Your task to perform on an android device: install app "Indeed Job Search" Image 0: 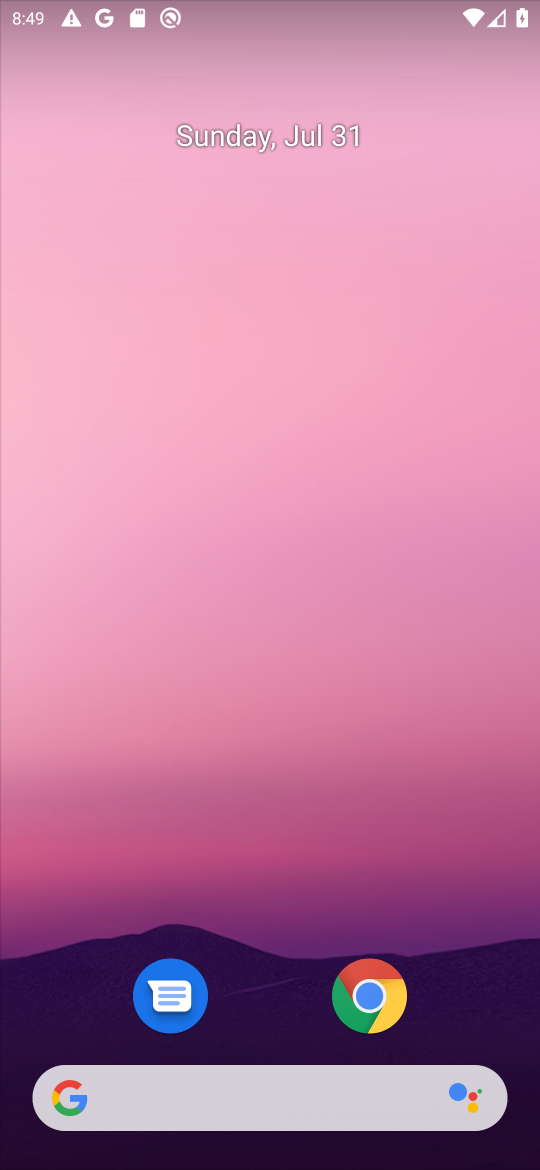
Step 0: press home button
Your task to perform on an android device: install app "Indeed Job Search" Image 1: 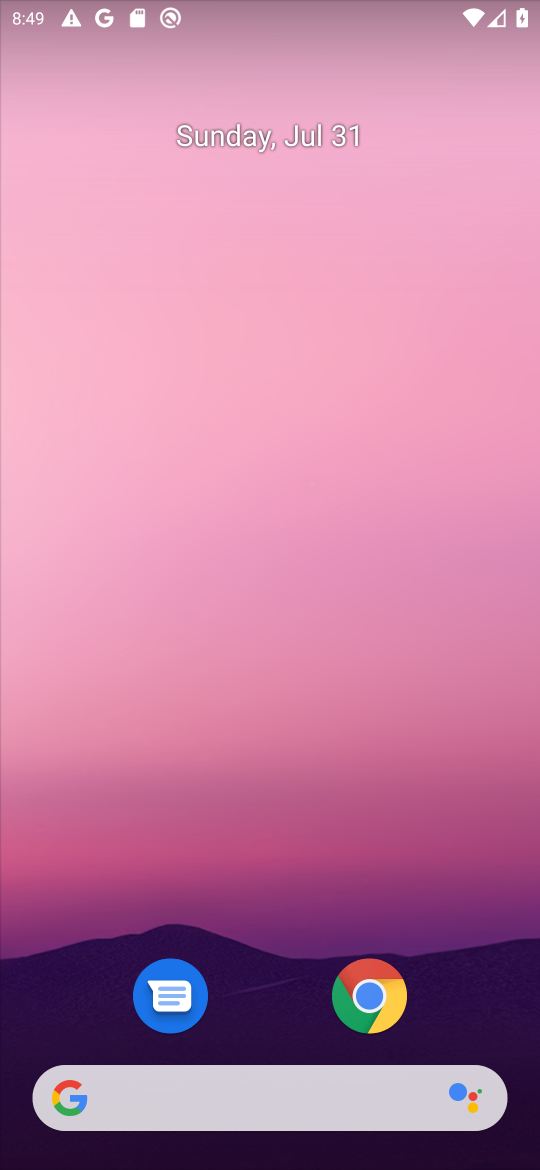
Step 1: drag from (468, 985) to (462, 92)
Your task to perform on an android device: install app "Indeed Job Search" Image 2: 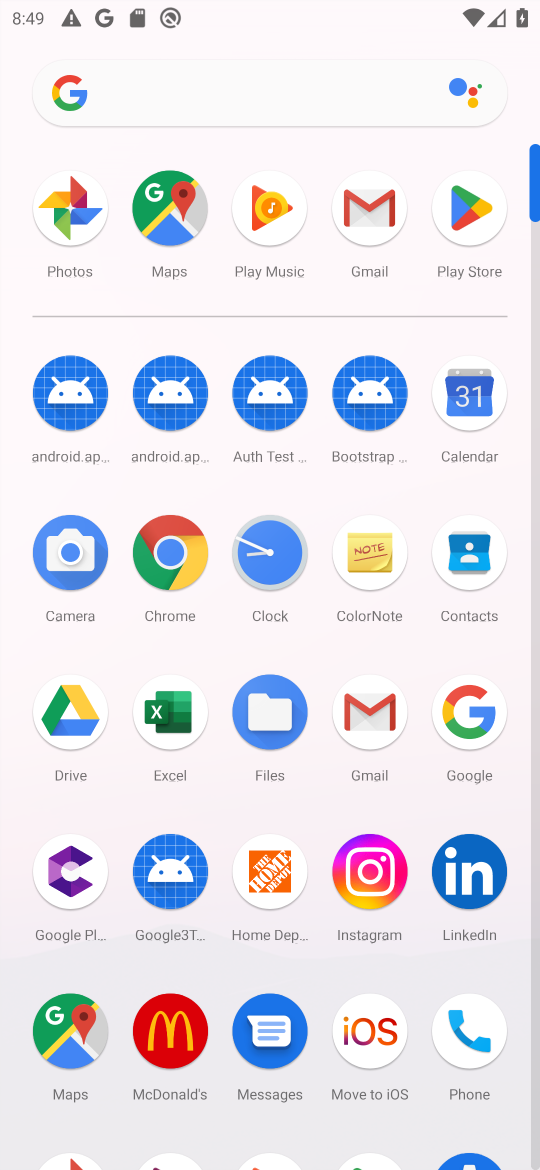
Step 2: click (472, 216)
Your task to perform on an android device: install app "Indeed Job Search" Image 3: 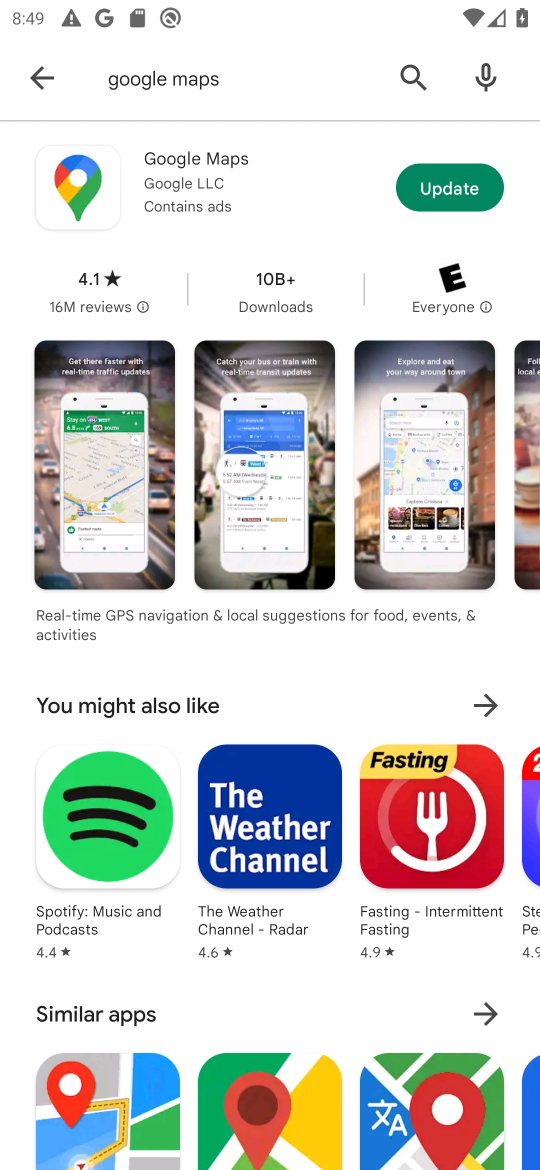
Step 3: click (472, 216)
Your task to perform on an android device: install app "Indeed Job Search" Image 4: 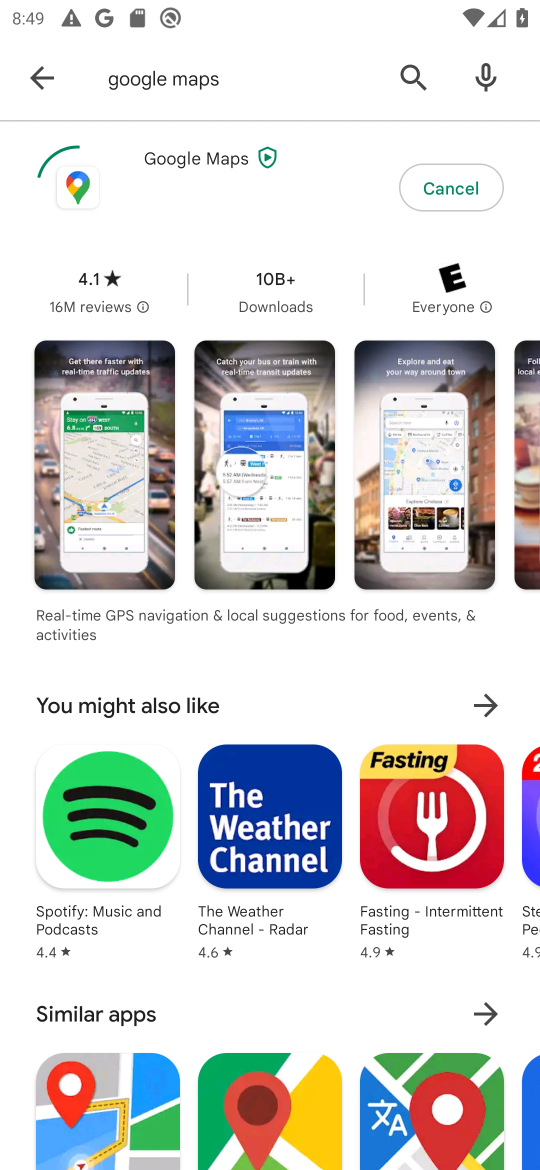
Step 4: click (390, 63)
Your task to perform on an android device: install app "Indeed Job Search" Image 5: 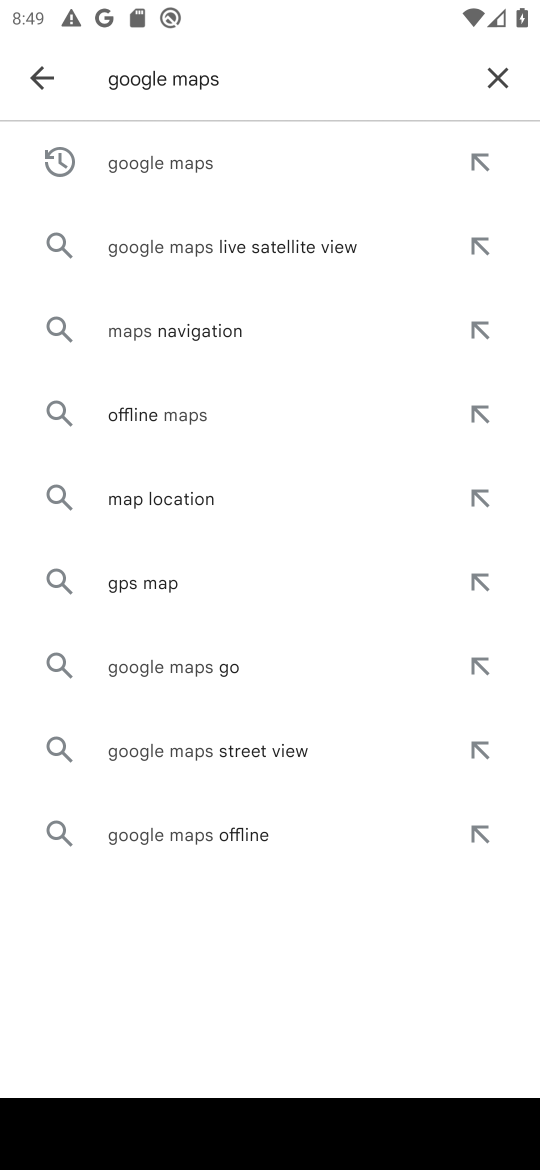
Step 5: click (515, 80)
Your task to perform on an android device: install app "Indeed Job Search" Image 6: 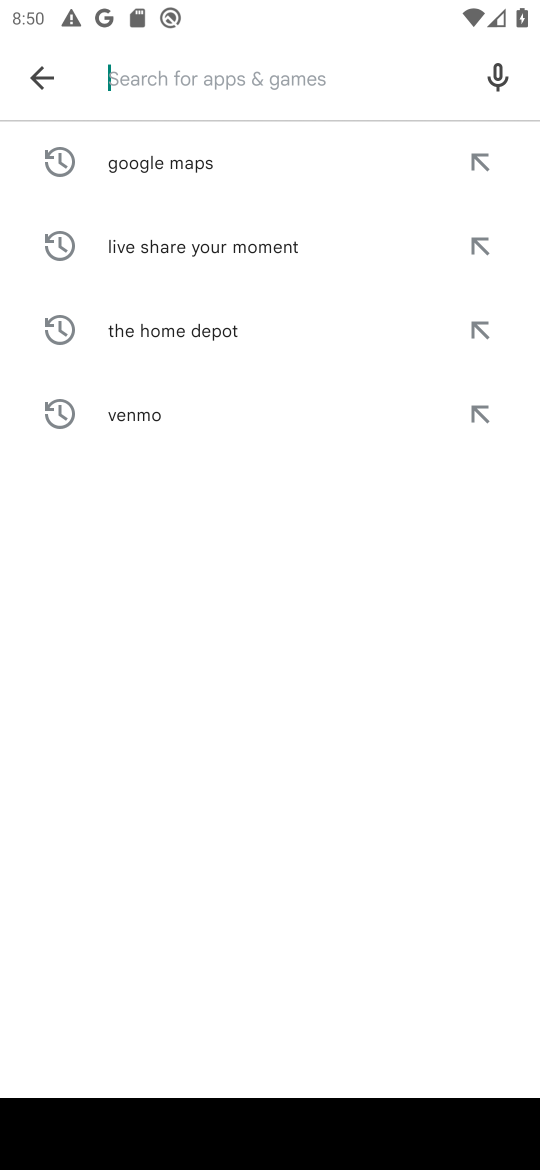
Step 6: type "indeed job search"
Your task to perform on an android device: install app "Indeed Job Search" Image 7: 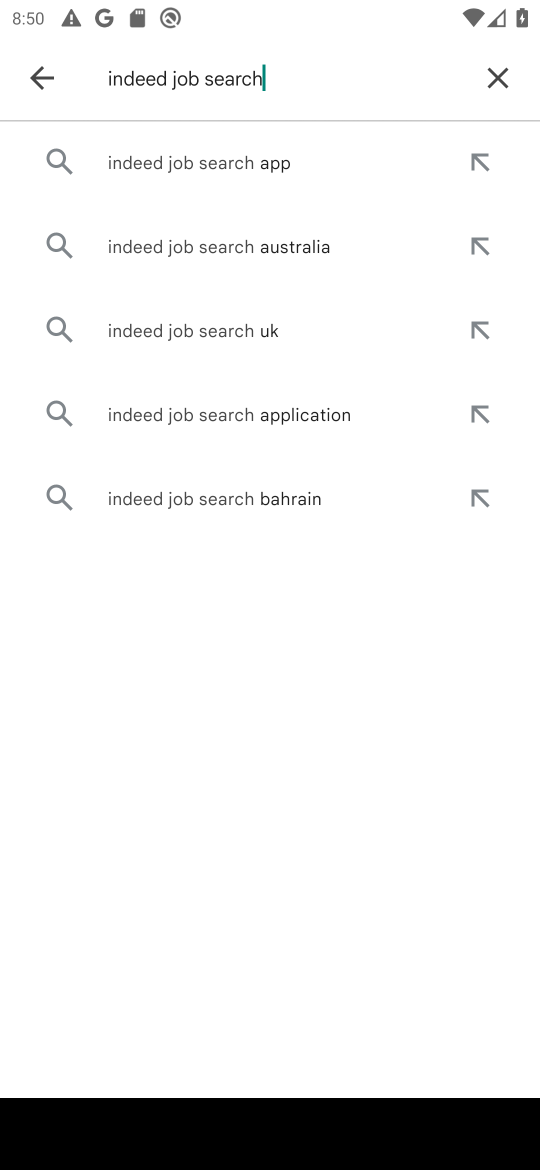
Step 7: click (197, 170)
Your task to perform on an android device: install app "Indeed Job Search" Image 8: 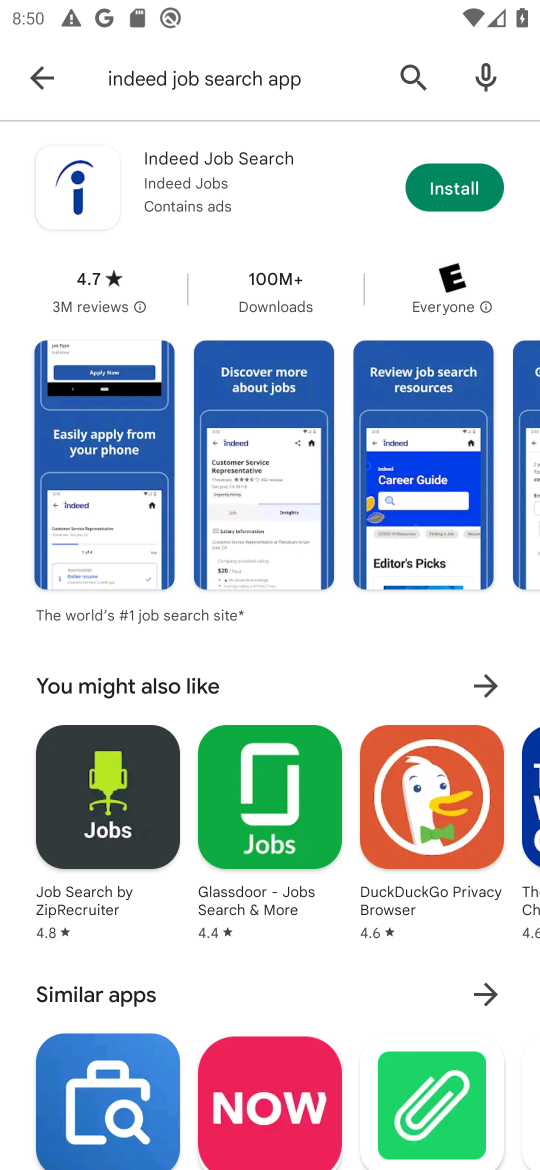
Step 8: click (440, 178)
Your task to perform on an android device: install app "Indeed Job Search" Image 9: 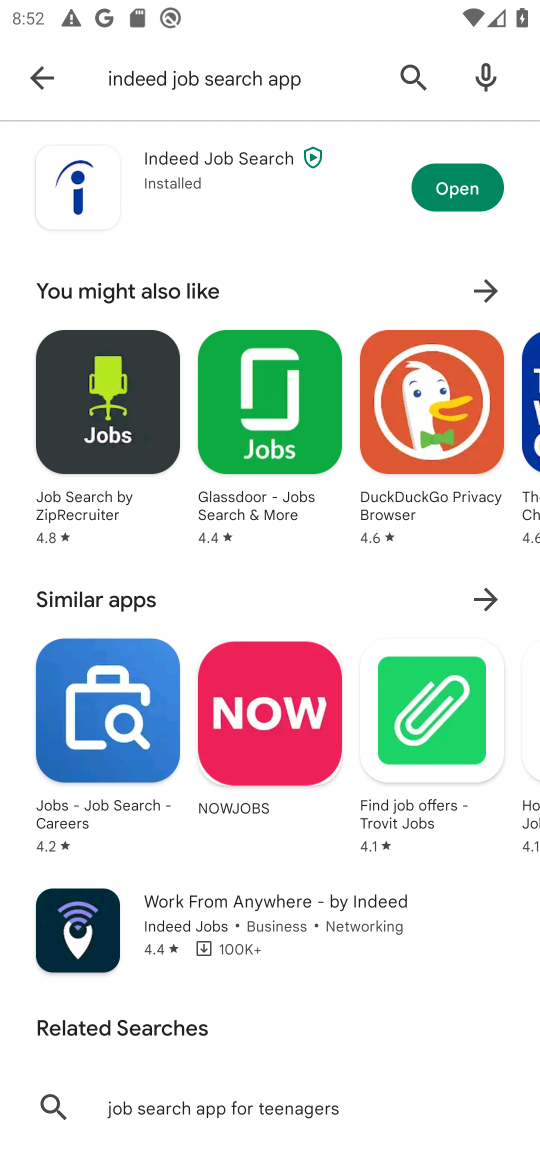
Step 9: task complete